Your task to perform on an android device: Open calendar and show me the second week of next month Image 0: 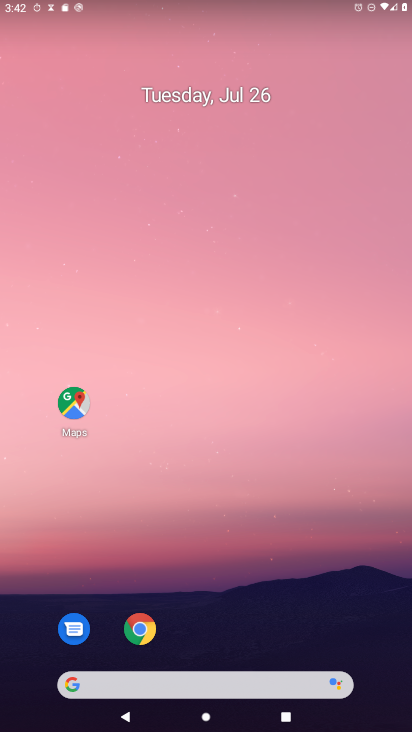
Step 0: drag from (94, 712) to (178, 0)
Your task to perform on an android device: Open calendar and show me the second week of next month Image 1: 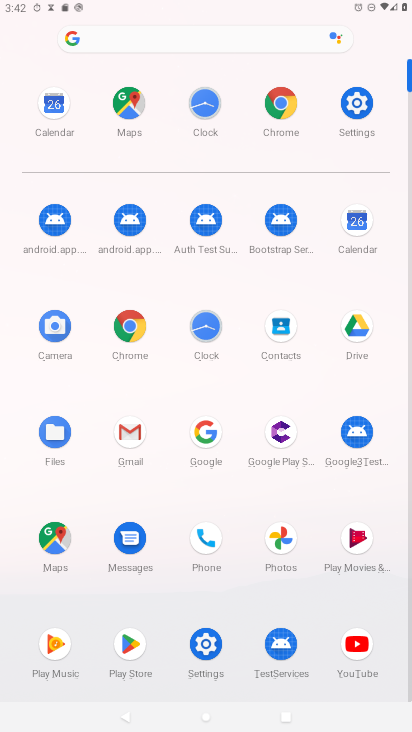
Step 1: click (362, 235)
Your task to perform on an android device: Open calendar and show me the second week of next month Image 2: 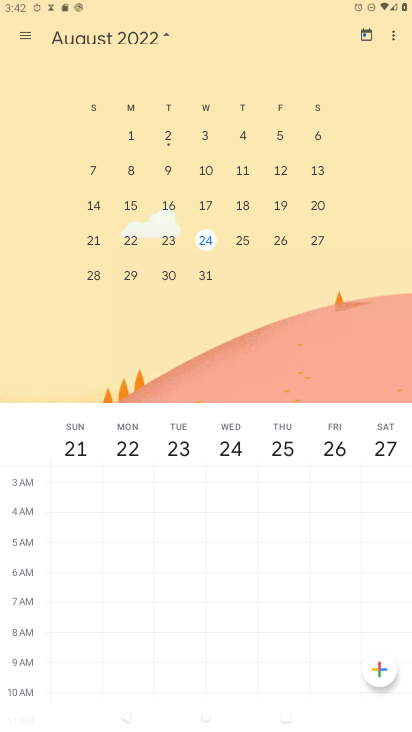
Step 2: click (197, 167)
Your task to perform on an android device: Open calendar and show me the second week of next month Image 3: 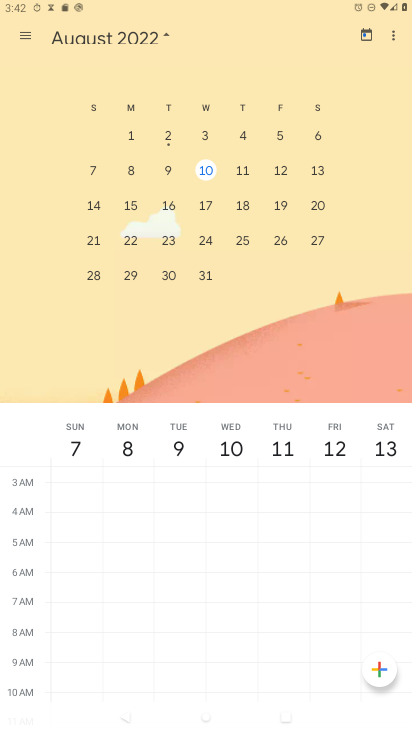
Step 3: task complete